Your task to perform on an android device: check google app version Image 0: 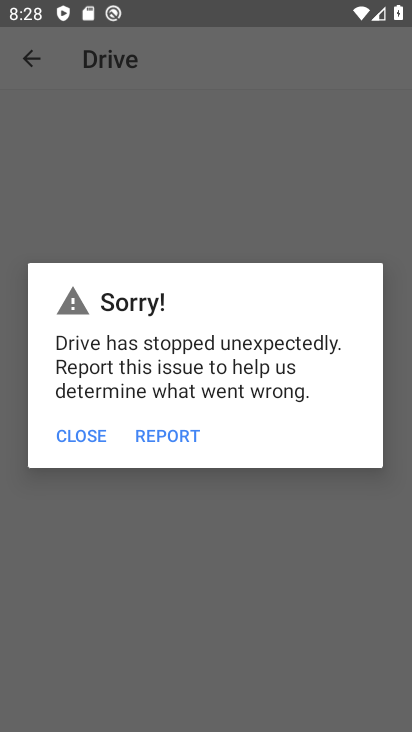
Step 0: press home button
Your task to perform on an android device: check google app version Image 1: 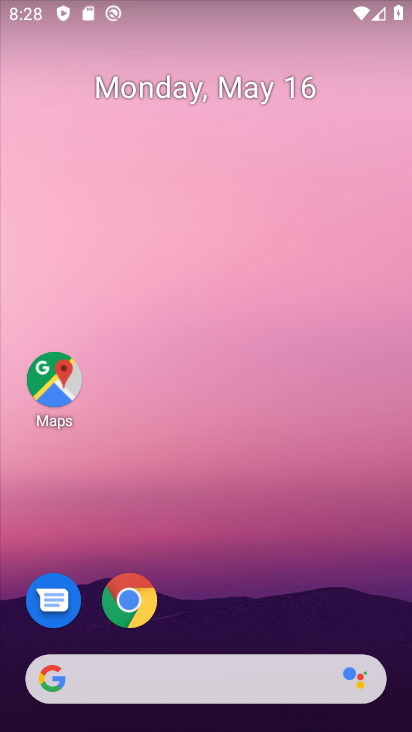
Step 1: click (127, 596)
Your task to perform on an android device: check google app version Image 2: 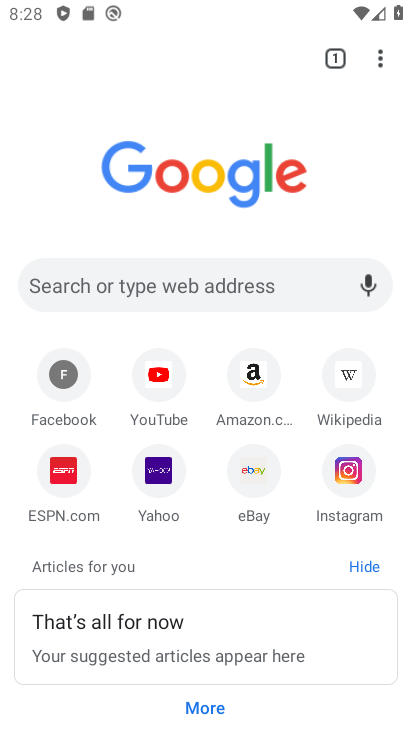
Step 2: click (377, 59)
Your task to perform on an android device: check google app version Image 3: 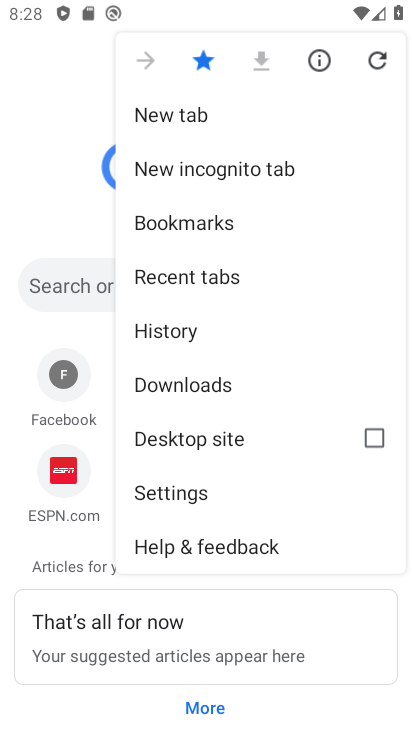
Step 3: click (184, 498)
Your task to perform on an android device: check google app version Image 4: 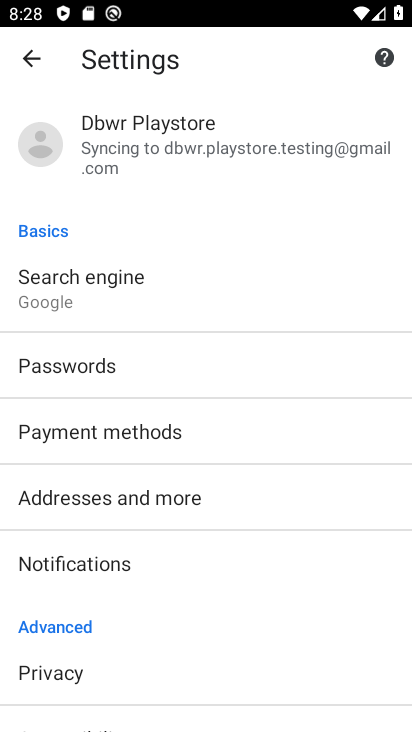
Step 4: drag from (189, 657) to (199, 252)
Your task to perform on an android device: check google app version Image 5: 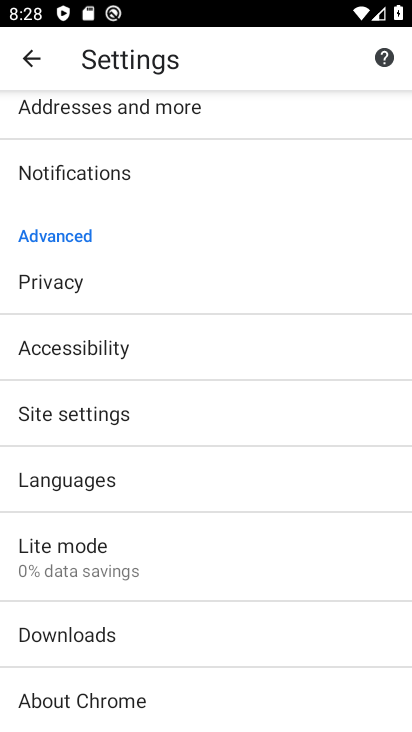
Step 5: click (115, 689)
Your task to perform on an android device: check google app version Image 6: 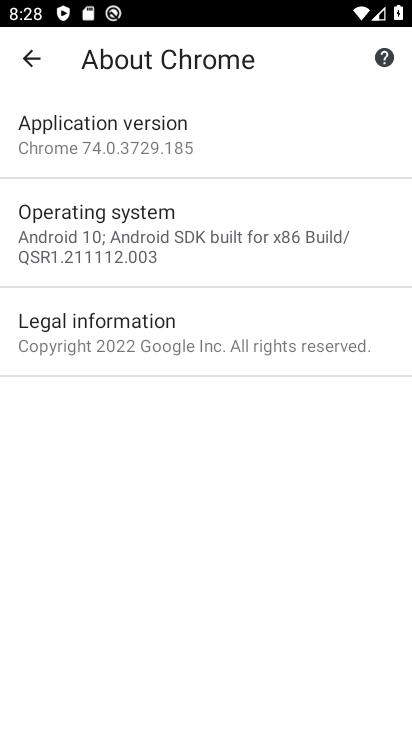
Step 6: task complete